Your task to perform on an android device: change the clock display to show seconds Image 0: 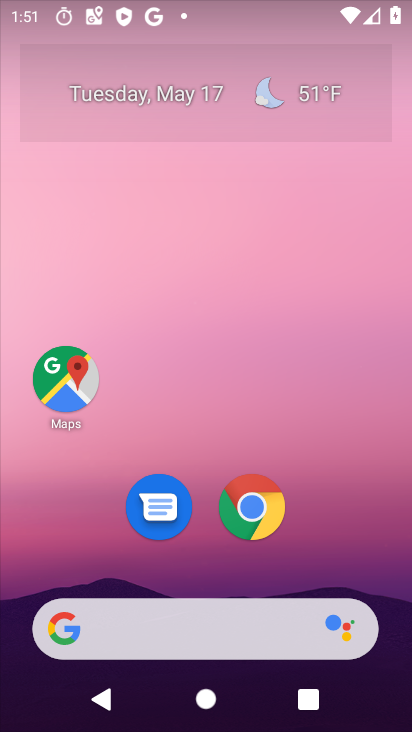
Step 0: drag from (227, 564) to (201, 73)
Your task to perform on an android device: change the clock display to show seconds Image 1: 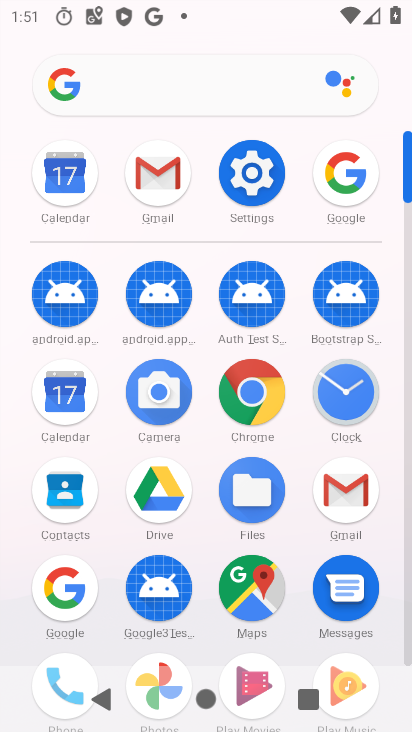
Step 1: click (342, 386)
Your task to perform on an android device: change the clock display to show seconds Image 2: 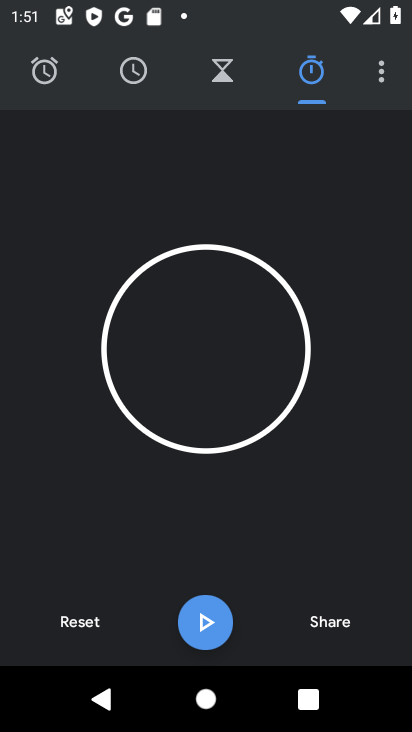
Step 2: click (367, 72)
Your task to perform on an android device: change the clock display to show seconds Image 3: 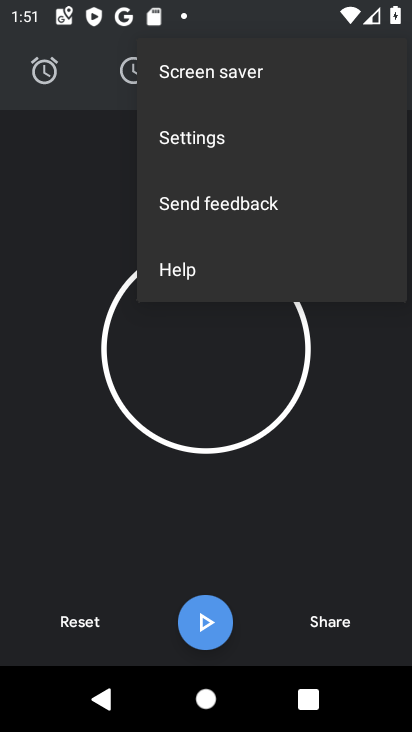
Step 3: click (215, 131)
Your task to perform on an android device: change the clock display to show seconds Image 4: 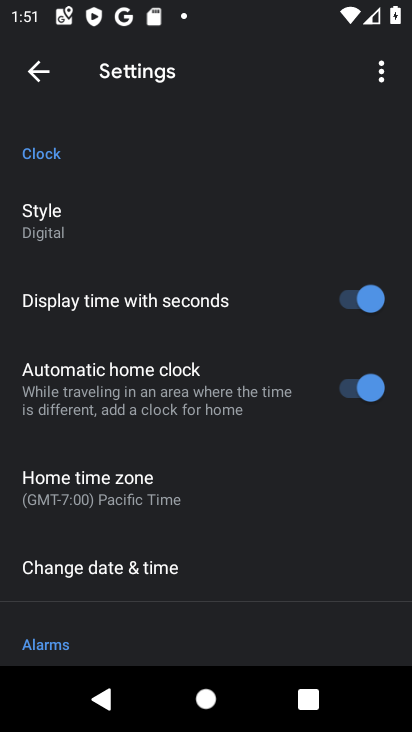
Step 4: click (360, 292)
Your task to perform on an android device: change the clock display to show seconds Image 5: 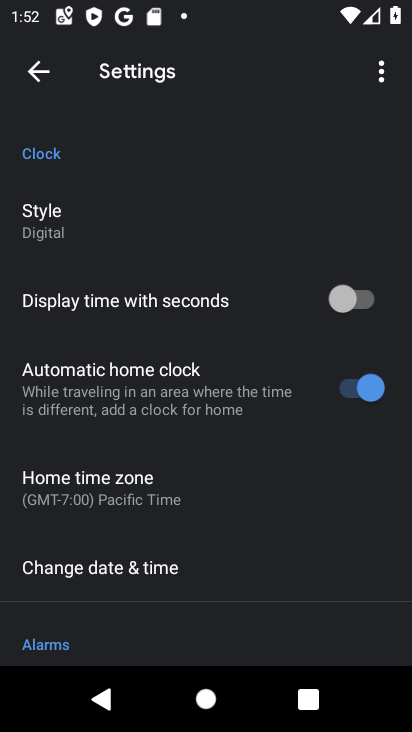
Step 5: task complete